Your task to perform on an android device: find snoozed emails in the gmail app Image 0: 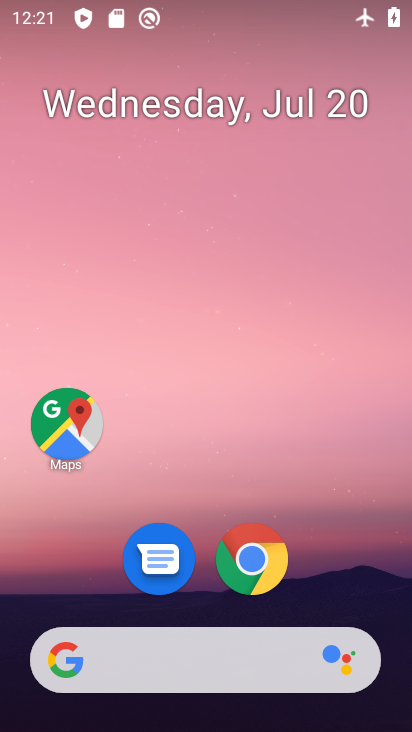
Step 0: click (399, 508)
Your task to perform on an android device: find snoozed emails in the gmail app Image 1: 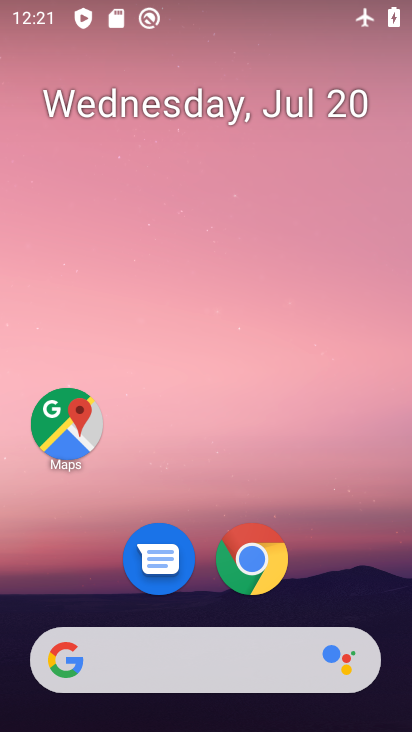
Step 1: drag from (376, 582) to (374, 213)
Your task to perform on an android device: find snoozed emails in the gmail app Image 2: 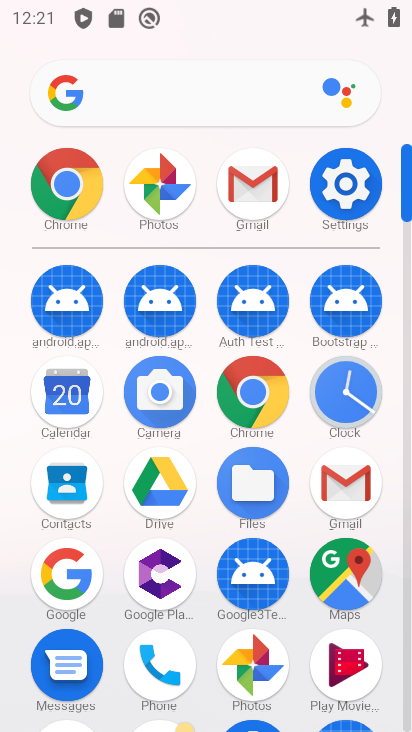
Step 2: click (363, 495)
Your task to perform on an android device: find snoozed emails in the gmail app Image 3: 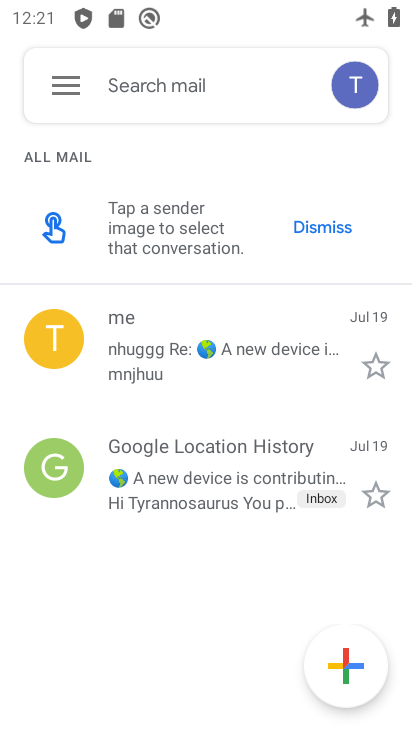
Step 3: click (72, 89)
Your task to perform on an android device: find snoozed emails in the gmail app Image 4: 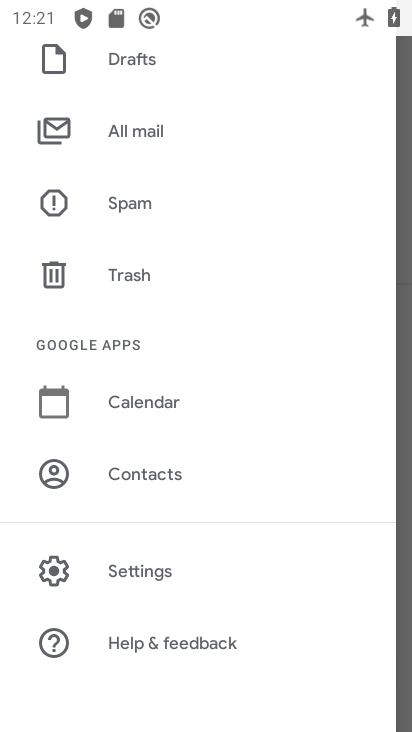
Step 4: drag from (292, 264) to (292, 387)
Your task to perform on an android device: find snoozed emails in the gmail app Image 5: 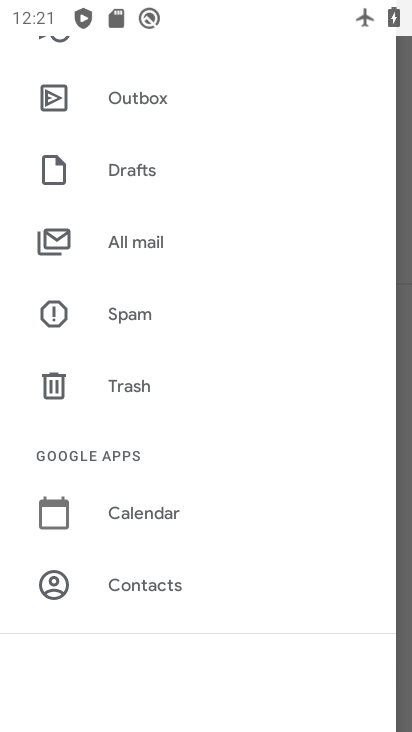
Step 5: drag from (309, 249) to (305, 327)
Your task to perform on an android device: find snoozed emails in the gmail app Image 6: 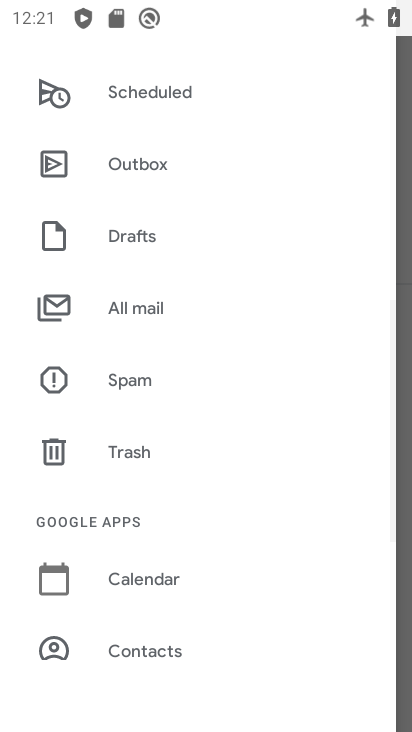
Step 6: drag from (306, 194) to (302, 309)
Your task to perform on an android device: find snoozed emails in the gmail app Image 7: 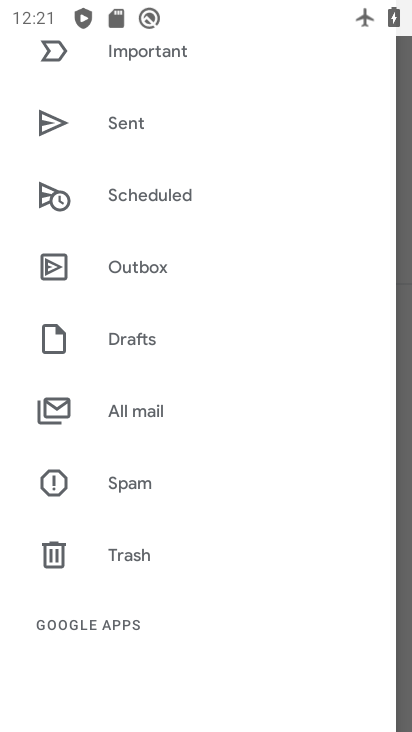
Step 7: drag from (301, 180) to (298, 321)
Your task to perform on an android device: find snoozed emails in the gmail app Image 8: 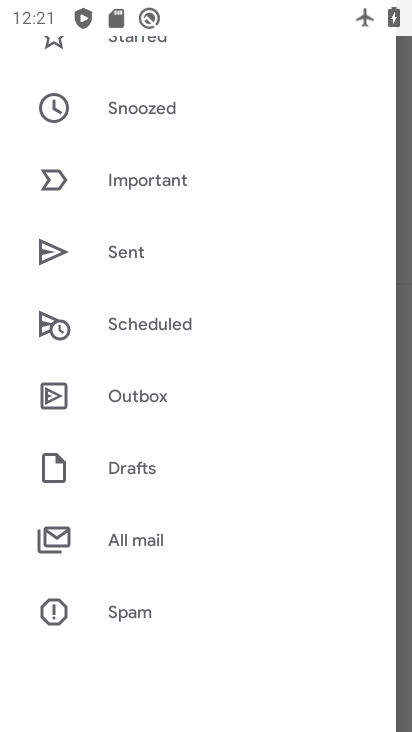
Step 8: drag from (299, 171) to (294, 440)
Your task to perform on an android device: find snoozed emails in the gmail app Image 9: 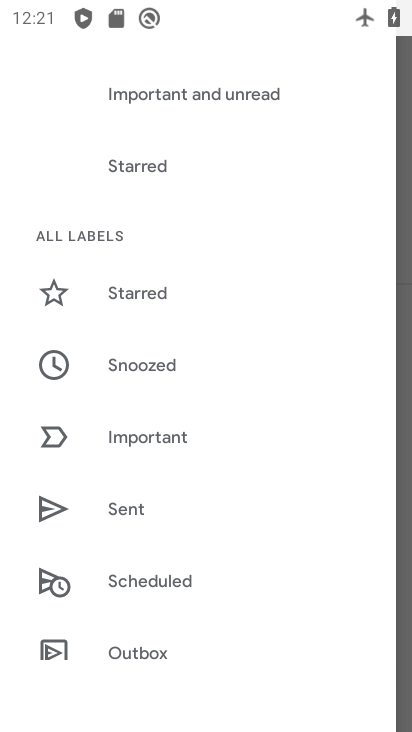
Step 9: click (194, 363)
Your task to perform on an android device: find snoozed emails in the gmail app Image 10: 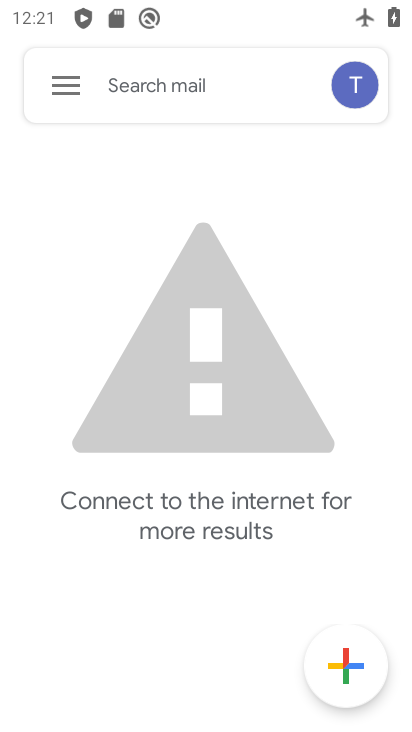
Step 10: task complete